Your task to perform on an android device: change the clock style Image 0: 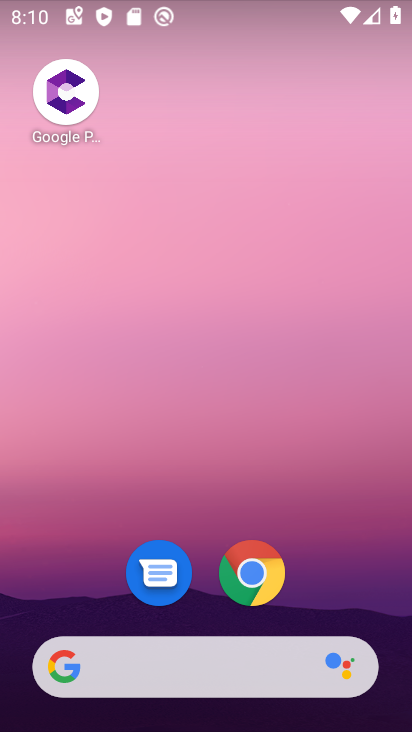
Step 0: drag from (323, 580) to (319, 0)
Your task to perform on an android device: change the clock style Image 1: 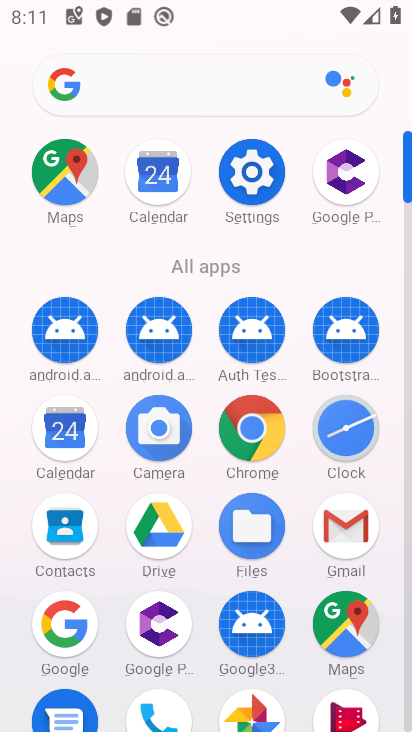
Step 1: click (351, 428)
Your task to perform on an android device: change the clock style Image 2: 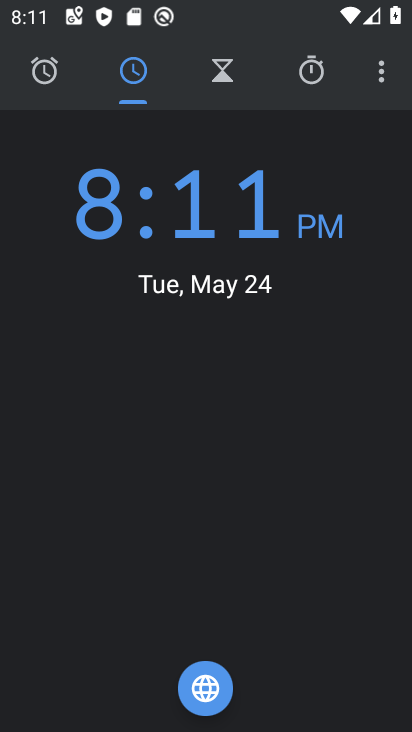
Step 2: click (363, 68)
Your task to perform on an android device: change the clock style Image 3: 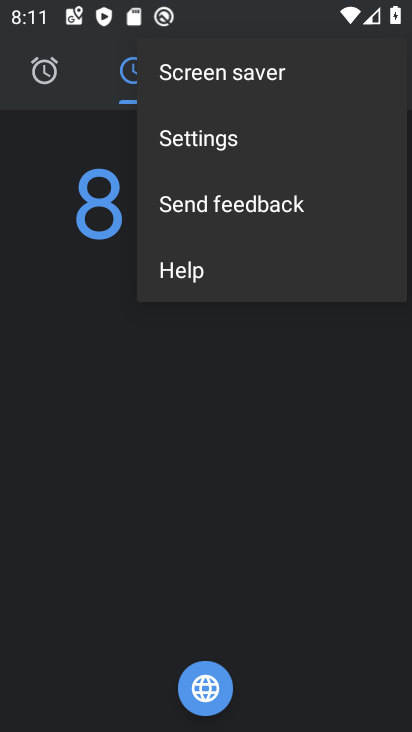
Step 3: click (287, 155)
Your task to perform on an android device: change the clock style Image 4: 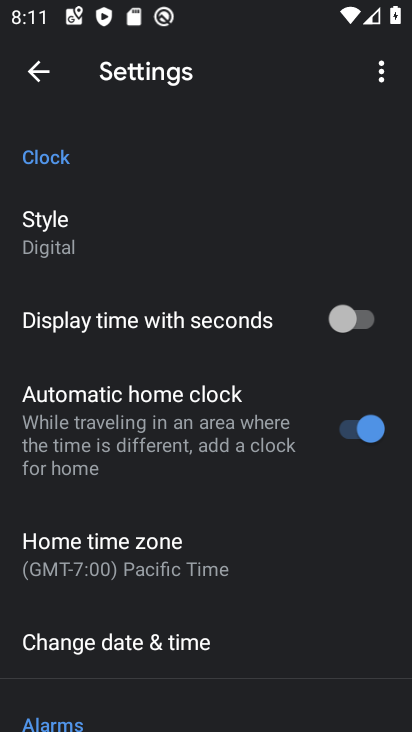
Step 4: click (73, 222)
Your task to perform on an android device: change the clock style Image 5: 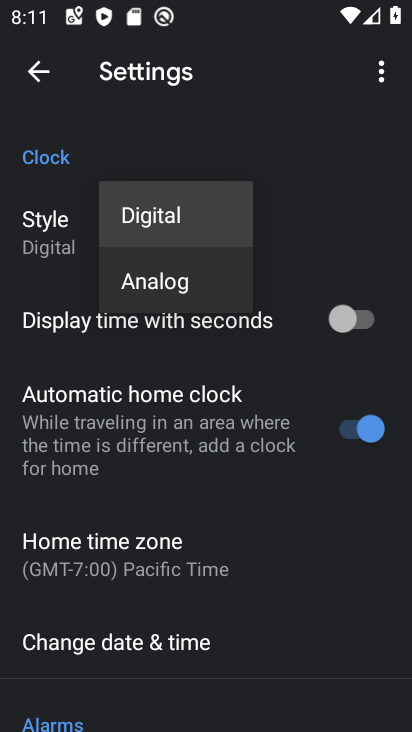
Step 5: click (157, 287)
Your task to perform on an android device: change the clock style Image 6: 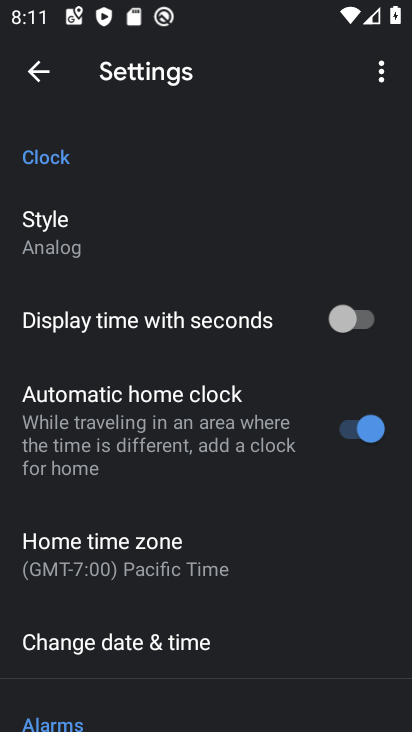
Step 6: task complete